Your task to perform on an android device: check google app version Image 0: 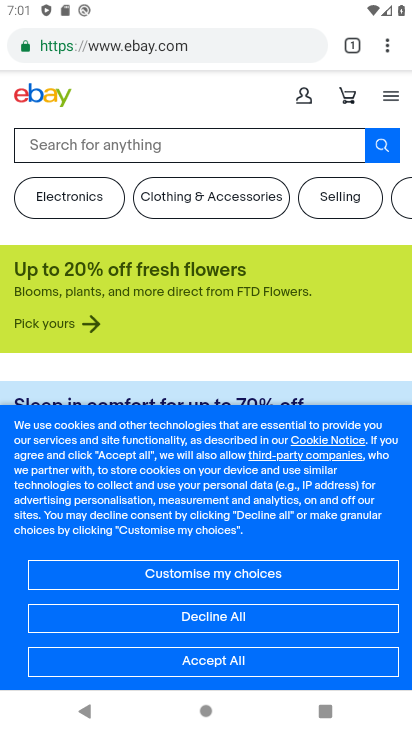
Step 0: press home button
Your task to perform on an android device: check google app version Image 1: 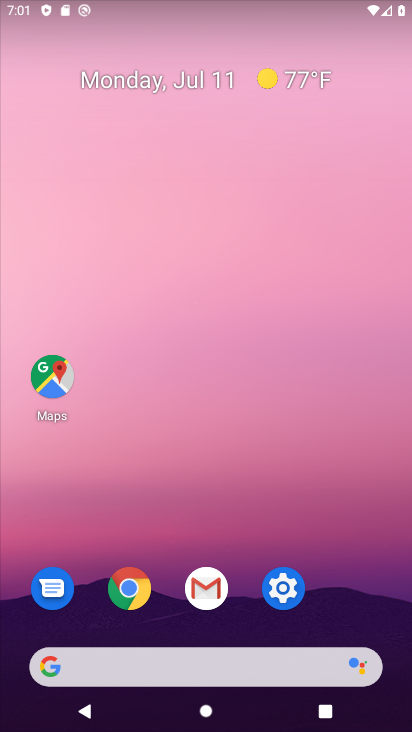
Step 1: drag from (266, 687) to (272, 190)
Your task to perform on an android device: check google app version Image 2: 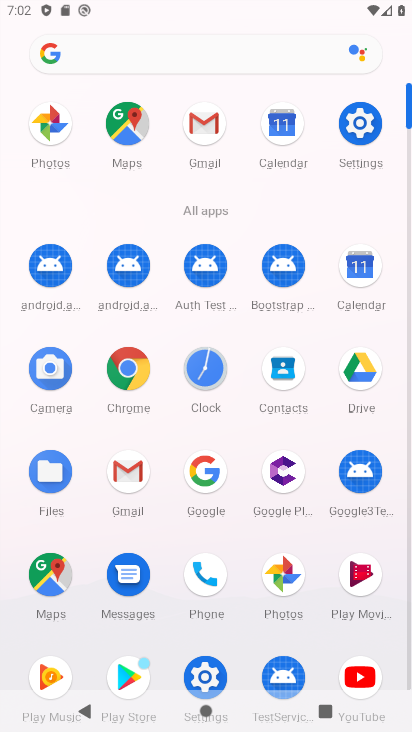
Step 2: click (138, 361)
Your task to perform on an android device: check google app version Image 3: 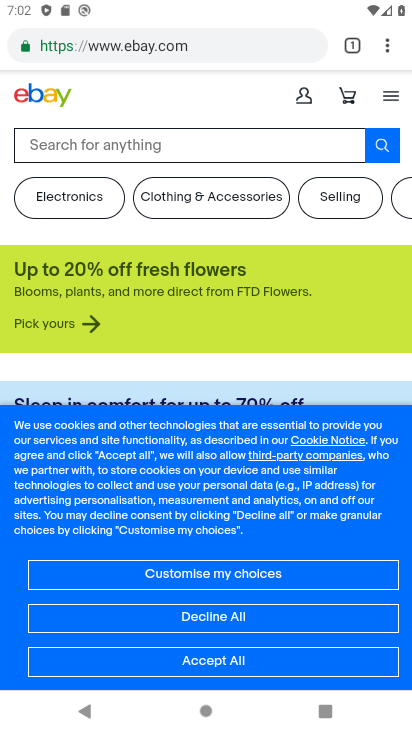
Step 3: click (383, 55)
Your task to perform on an android device: check google app version Image 4: 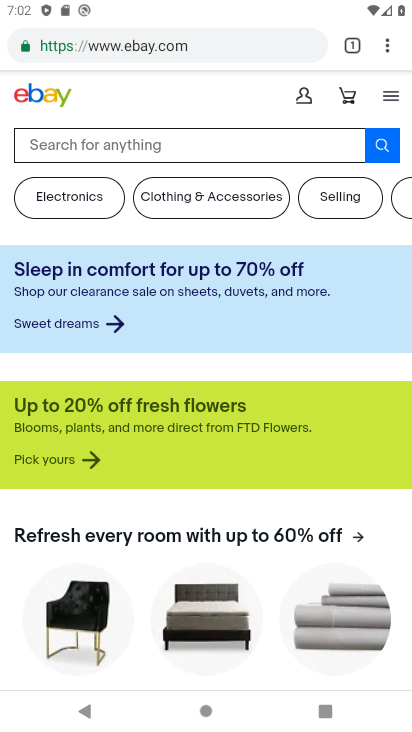
Step 4: click (396, 54)
Your task to perform on an android device: check google app version Image 5: 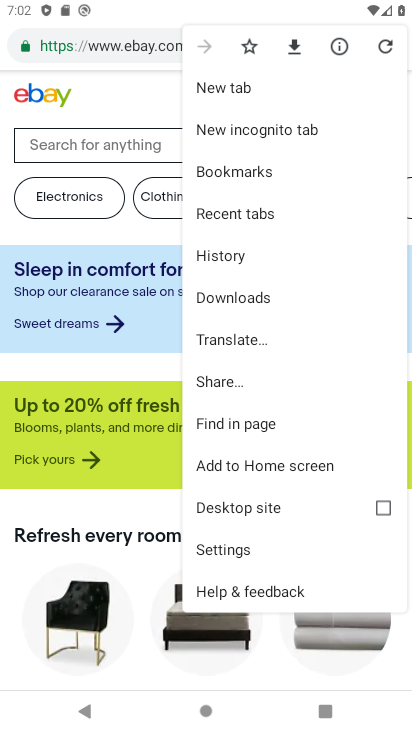
Step 5: click (235, 547)
Your task to perform on an android device: check google app version Image 6: 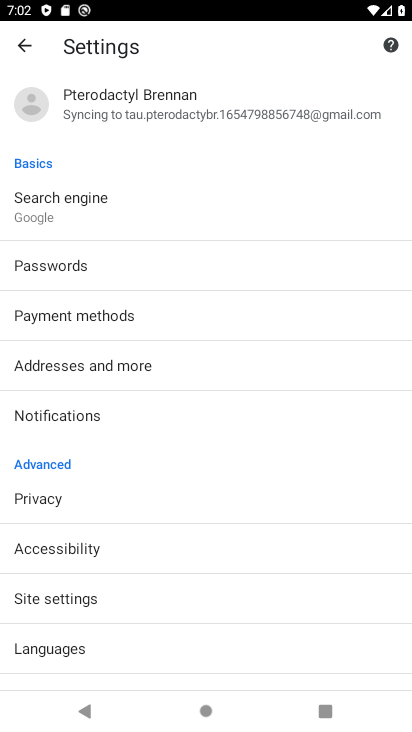
Step 6: drag from (116, 618) to (193, 136)
Your task to perform on an android device: check google app version Image 7: 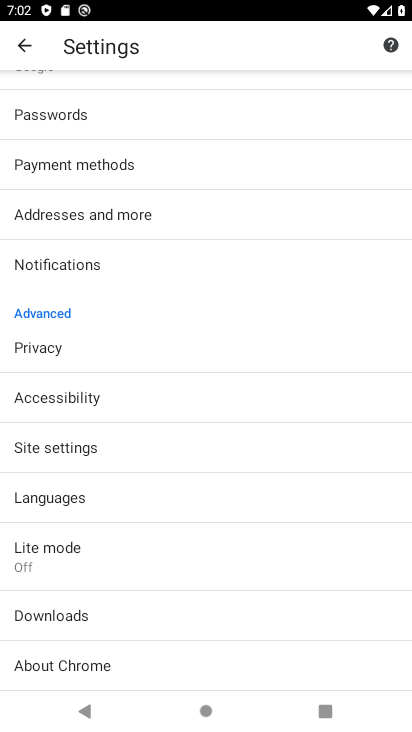
Step 7: click (68, 662)
Your task to perform on an android device: check google app version Image 8: 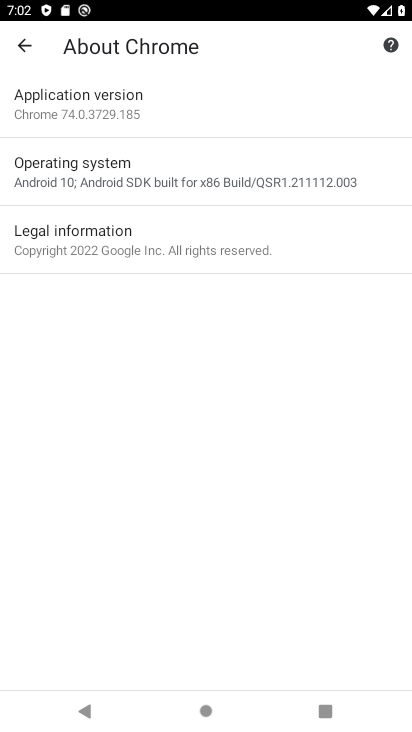
Step 8: click (79, 100)
Your task to perform on an android device: check google app version Image 9: 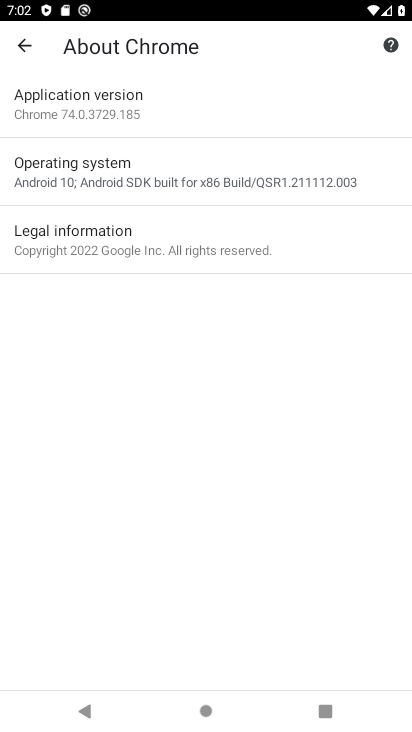
Step 9: task complete